Your task to perform on an android device: change the clock display to analog Image 0: 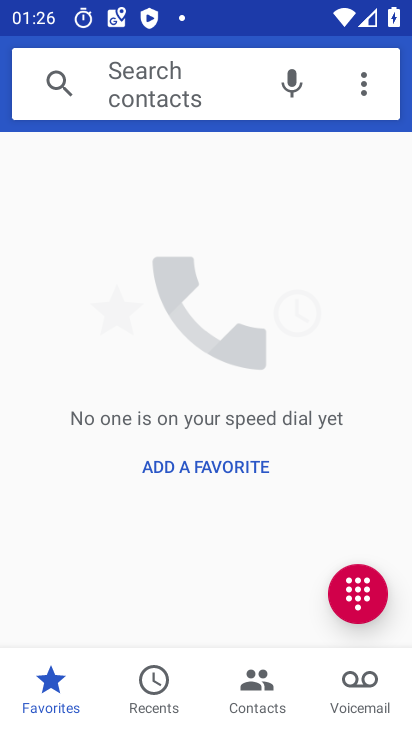
Step 0: press back button
Your task to perform on an android device: change the clock display to analog Image 1: 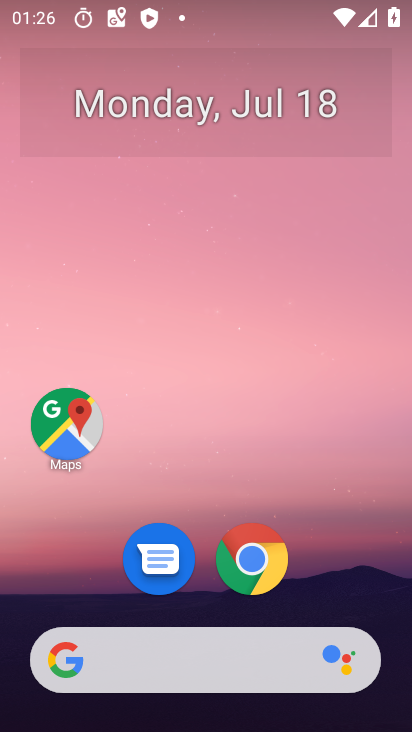
Step 1: drag from (215, 521) to (250, 10)
Your task to perform on an android device: change the clock display to analog Image 2: 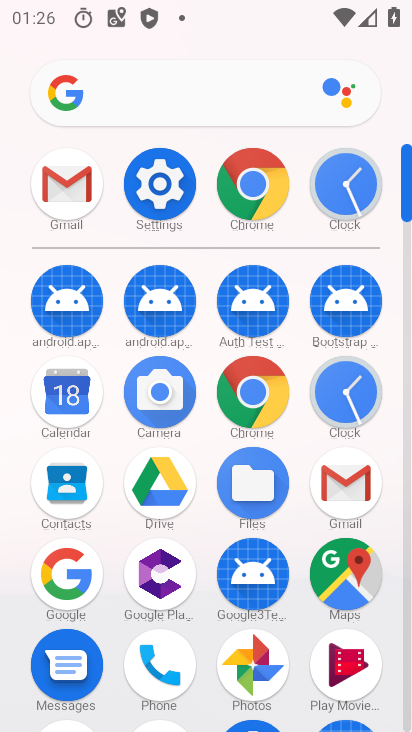
Step 2: click (345, 399)
Your task to perform on an android device: change the clock display to analog Image 3: 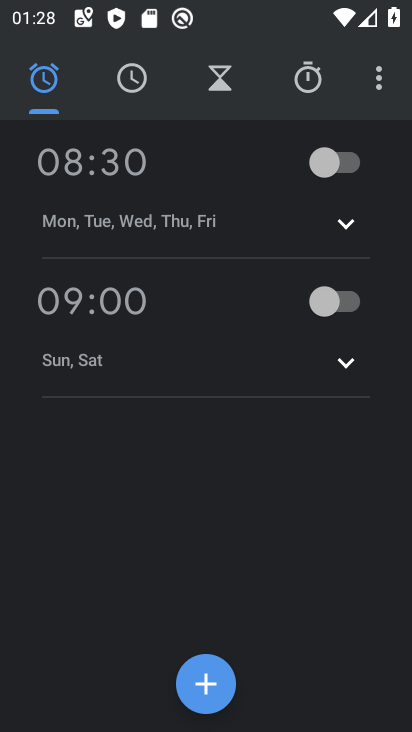
Step 3: click (383, 75)
Your task to perform on an android device: change the clock display to analog Image 4: 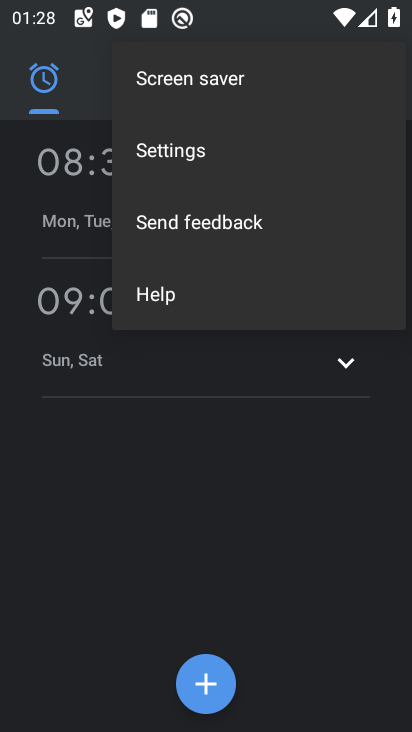
Step 4: click (168, 142)
Your task to perform on an android device: change the clock display to analog Image 5: 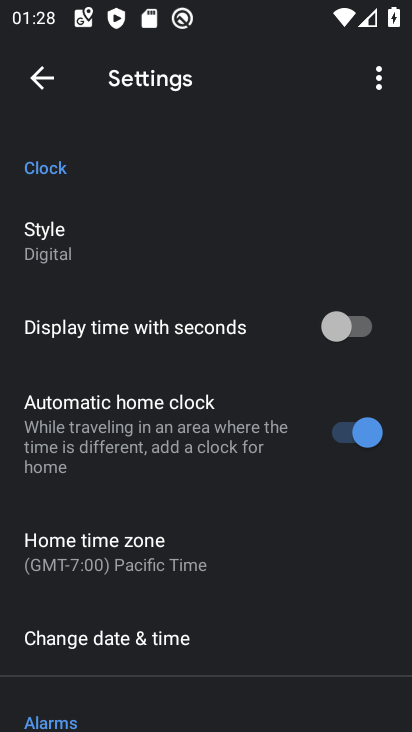
Step 5: click (60, 249)
Your task to perform on an android device: change the clock display to analog Image 6: 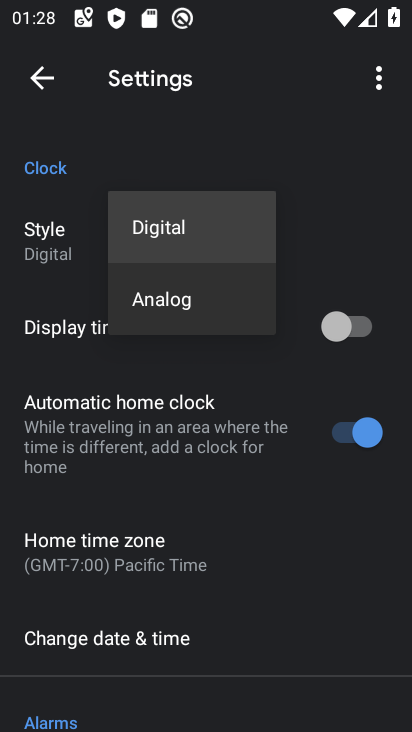
Step 6: click (155, 292)
Your task to perform on an android device: change the clock display to analog Image 7: 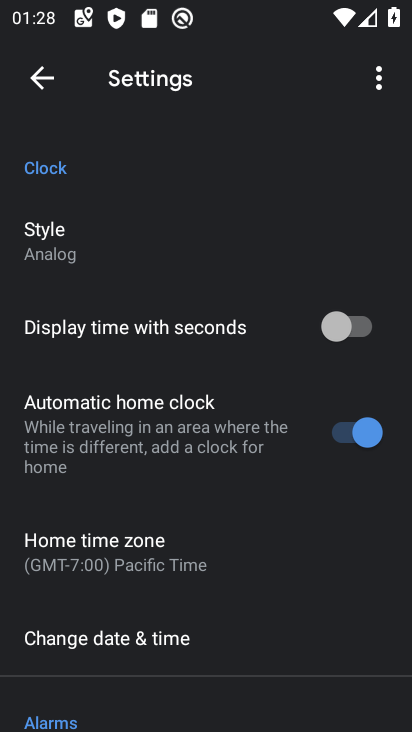
Step 7: task complete